Your task to perform on an android device: Open the calendar app, open the side menu, and click the "Day" option Image 0: 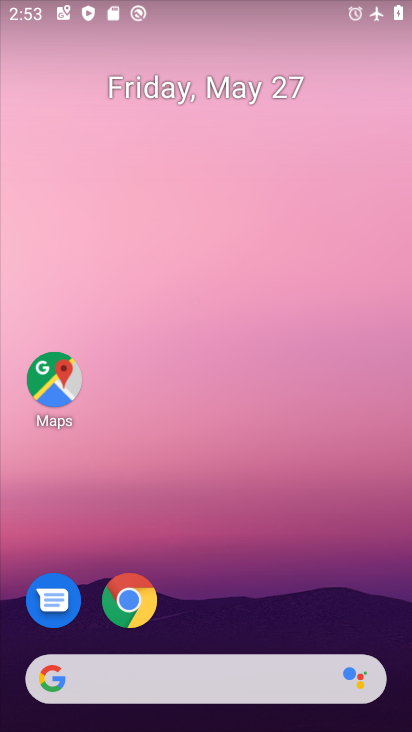
Step 0: drag from (252, 520) to (217, 22)
Your task to perform on an android device: Open the calendar app, open the side menu, and click the "Day" option Image 1: 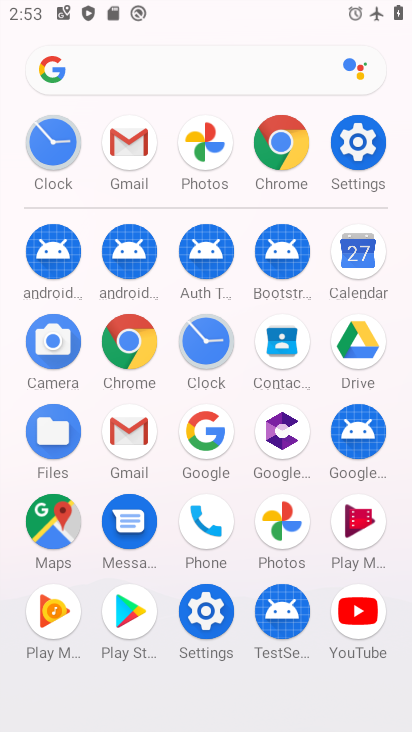
Step 1: drag from (0, 503) to (8, 214)
Your task to perform on an android device: Open the calendar app, open the side menu, and click the "Day" option Image 2: 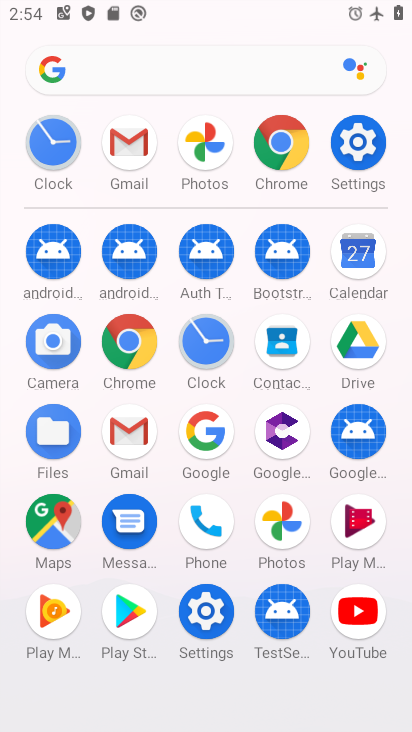
Step 2: drag from (17, 566) to (23, 274)
Your task to perform on an android device: Open the calendar app, open the side menu, and click the "Day" option Image 3: 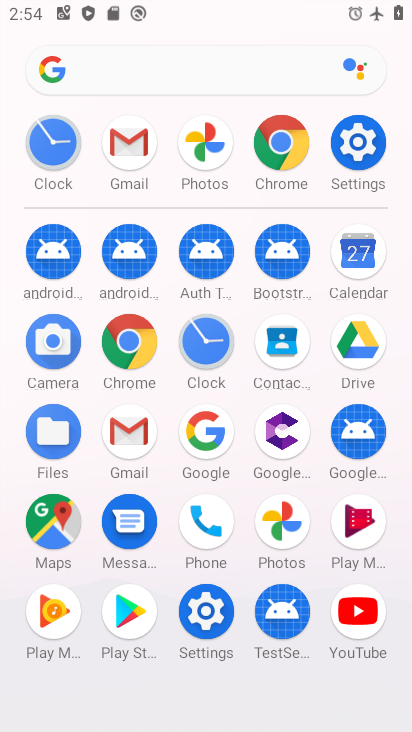
Step 3: click (373, 257)
Your task to perform on an android device: Open the calendar app, open the side menu, and click the "Day" option Image 4: 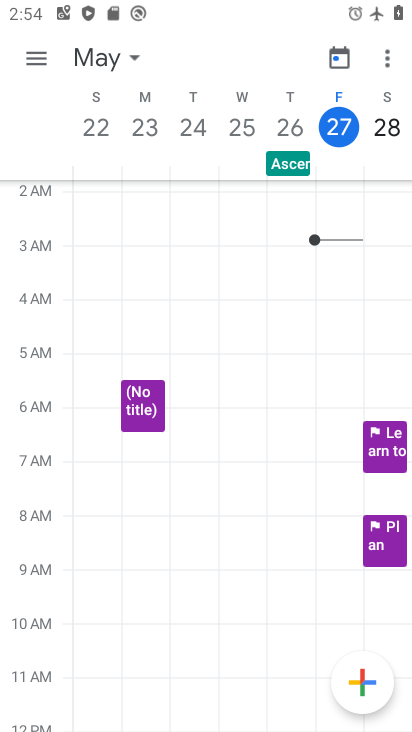
Step 4: click (29, 60)
Your task to perform on an android device: Open the calendar app, open the side menu, and click the "Day" option Image 5: 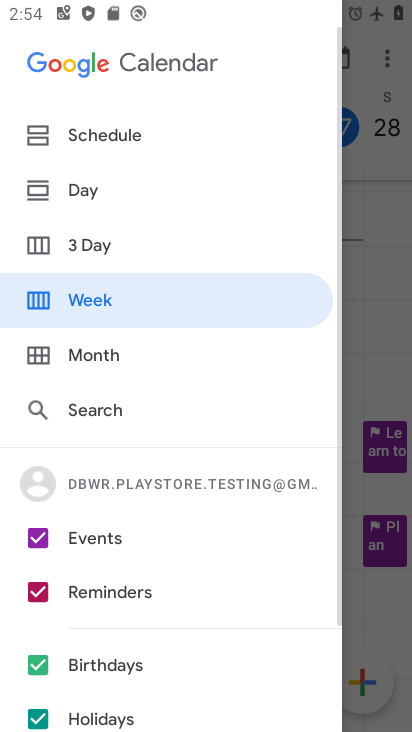
Step 5: click (115, 181)
Your task to perform on an android device: Open the calendar app, open the side menu, and click the "Day" option Image 6: 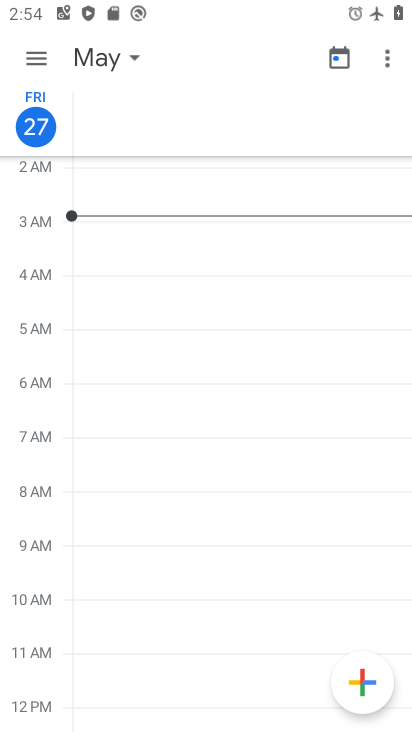
Step 6: task complete